Your task to perform on an android device: stop showing notifications on the lock screen Image 0: 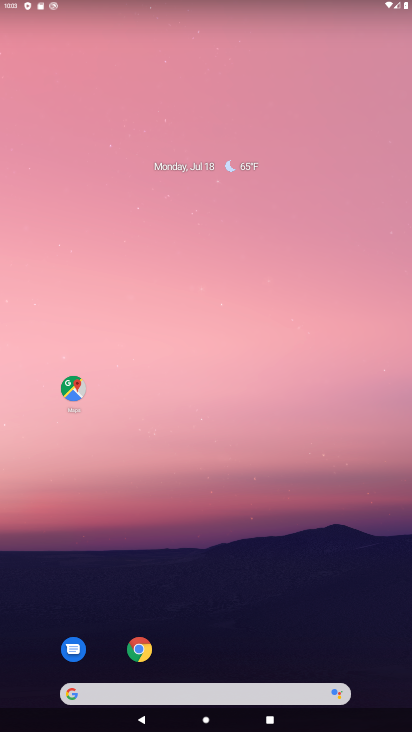
Step 0: drag from (246, 655) to (290, 108)
Your task to perform on an android device: stop showing notifications on the lock screen Image 1: 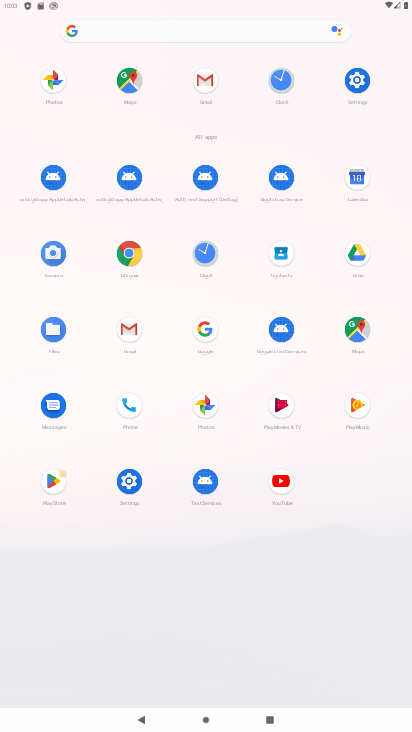
Step 1: click (123, 484)
Your task to perform on an android device: stop showing notifications on the lock screen Image 2: 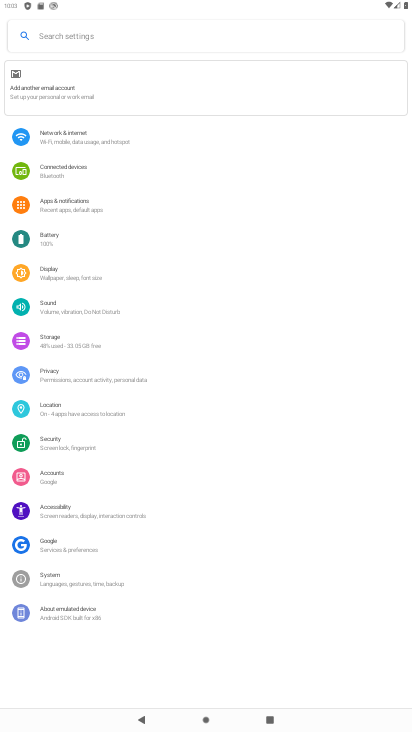
Step 2: click (108, 207)
Your task to perform on an android device: stop showing notifications on the lock screen Image 3: 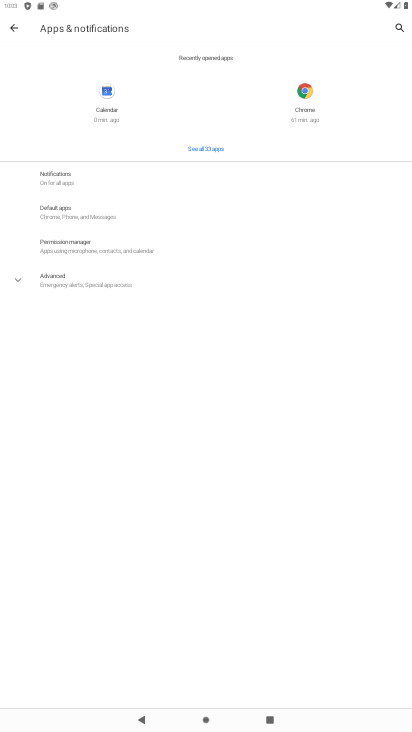
Step 3: click (116, 181)
Your task to perform on an android device: stop showing notifications on the lock screen Image 4: 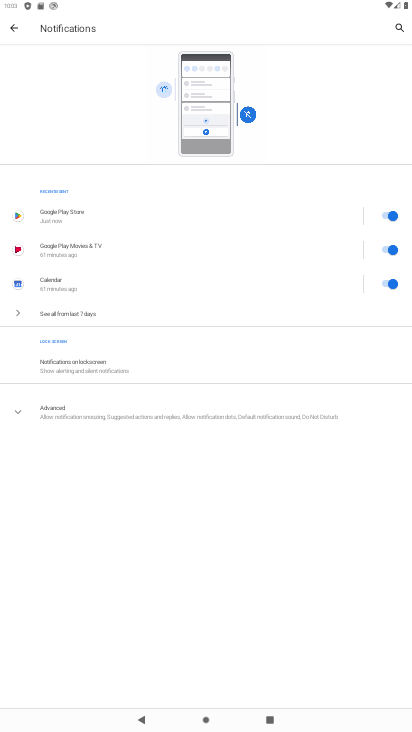
Step 4: click (191, 367)
Your task to perform on an android device: stop showing notifications on the lock screen Image 5: 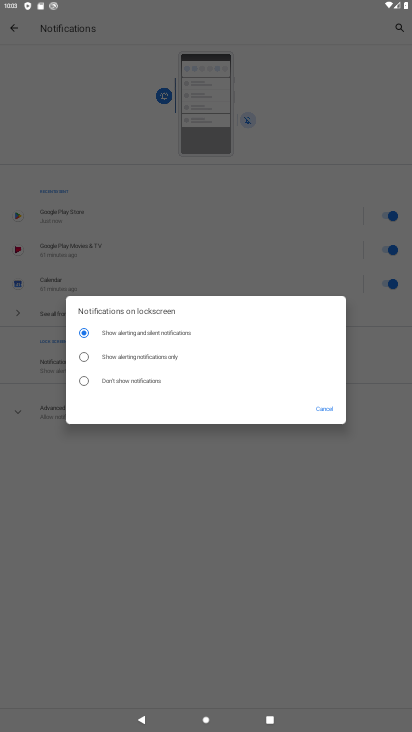
Step 5: click (209, 391)
Your task to perform on an android device: stop showing notifications on the lock screen Image 6: 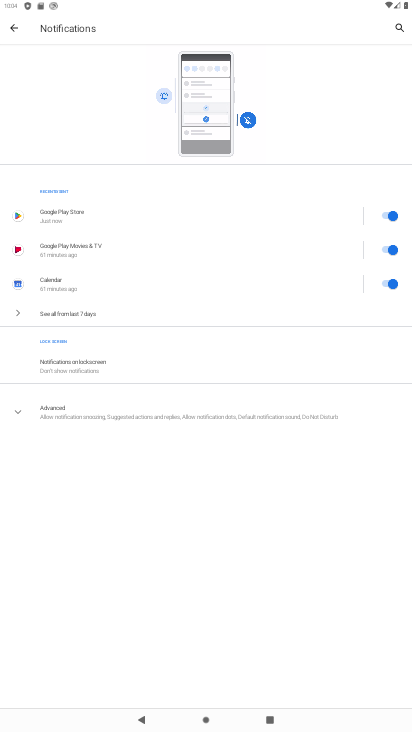
Step 6: task complete